Your task to perform on an android device: find photos in the google photos app Image 0: 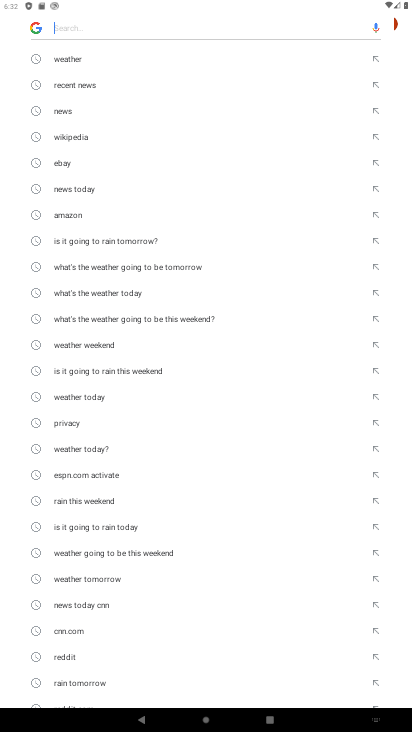
Step 0: press home button
Your task to perform on an android device: find photos in the google photos app Image 1: 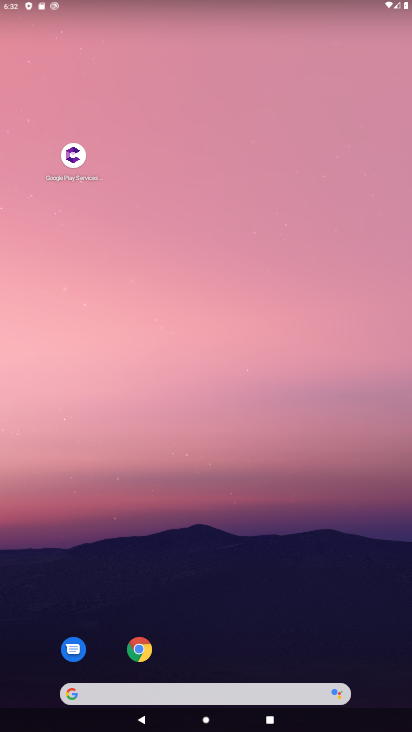
Step 1: drag from (203, 578) to (176, 202)
Your task to perform on an android device: find photos in the google photos app Image 2: 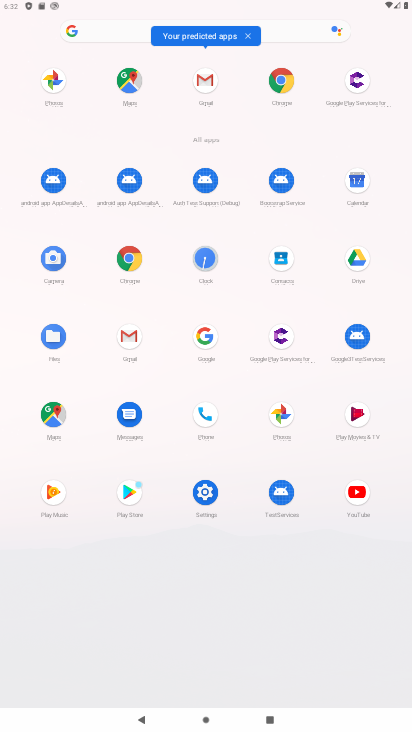
Step 2: click (52, 78)
Your task to perform on an android device: find photos in the google photos app Image 3: 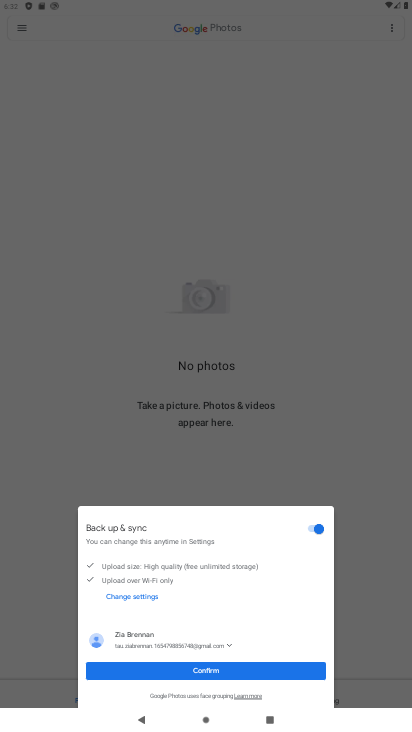
Step 3: click (205, 669)
Your task to perform on an android device: find photos in the google photos app Image 4: 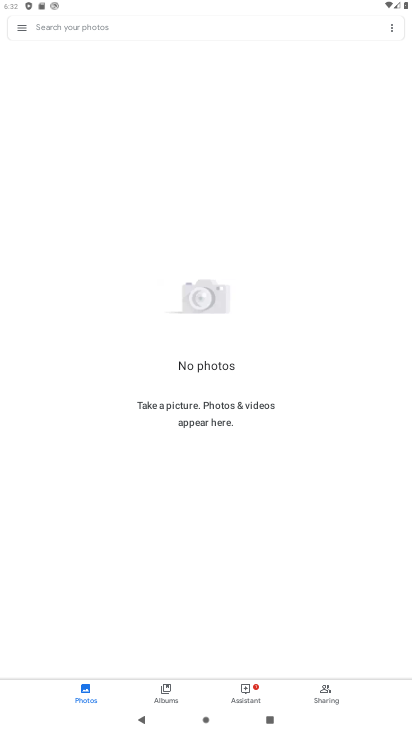
Step 4: click (102, 24)
Your task to perform on an android device: find photos in the google photos app Image 5: 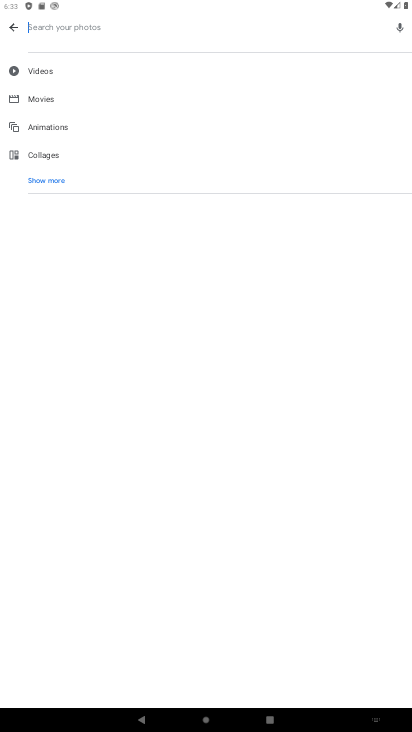
Step 5: task complete